Your task to perform on an android device: Check the weather Image 0: 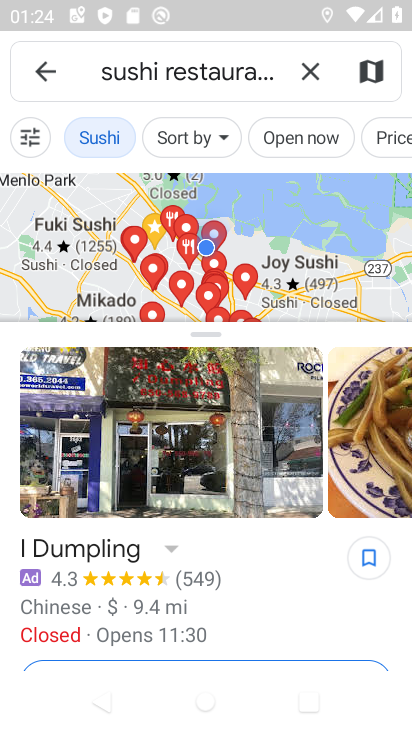
Step 0: press home button
Your task to perform on an android device: Check the weather Image 1: 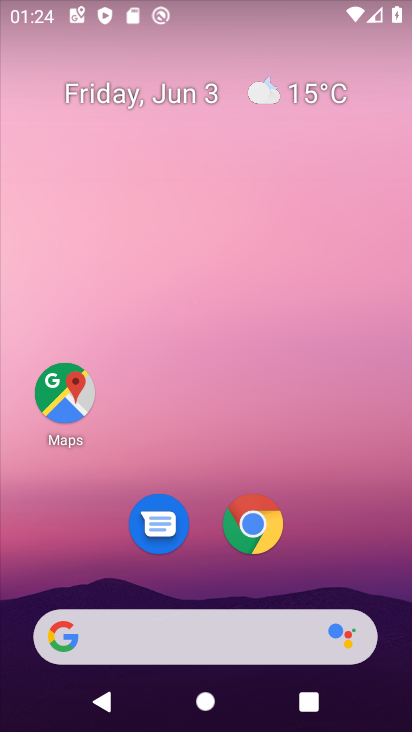
Step 1: click (273, 94)
Your task to perform on an android device: Check the weather Image 2: 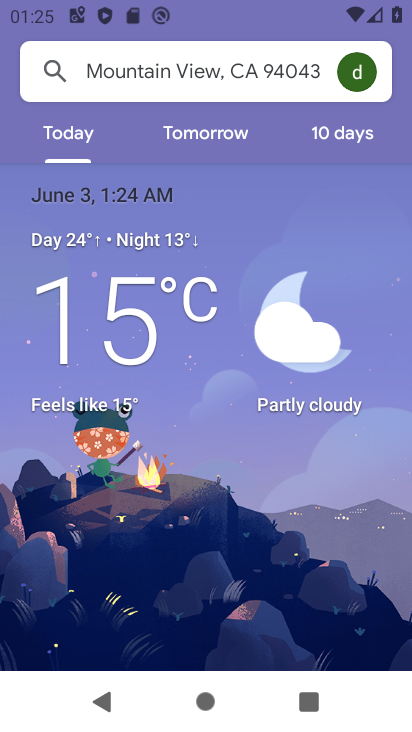
Step 2: task complete